Your task to perform on an android device: move an email to a new category in the gmail app Image 0: 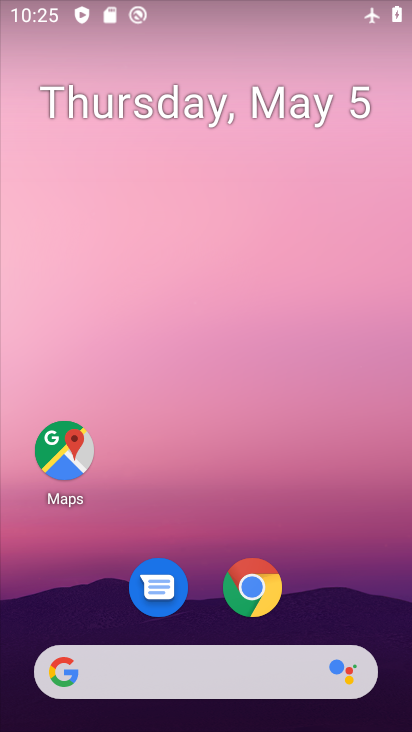
Step 0: drag from (349, 572) to (238, 45)
Your task to perform on an android device: move an email to a new category in the gmail app Image 1: 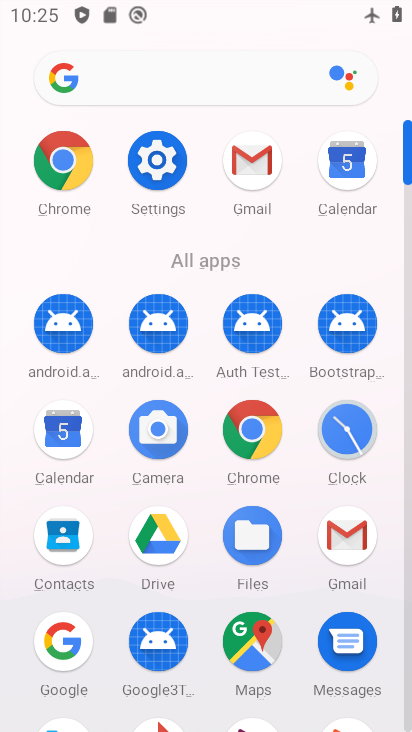
Step 1: drag from (7, 596) to (1, 256)
Your task to perform on an android device: move an email to a new category in the gmail app Image 2: 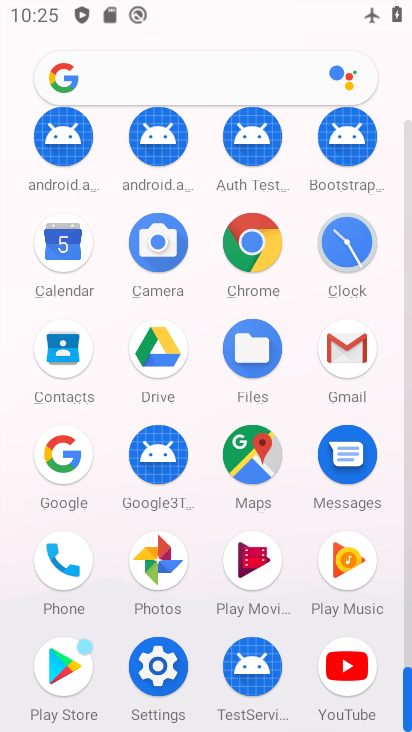
Step 2: click (345, 344)
Your task to perform on an android device: move an email to a new category in the gmail app Image 3: 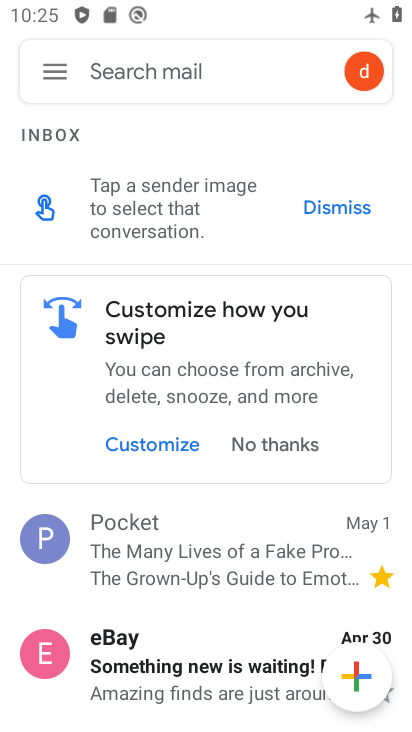
Step 3: click (48, 64)
Your task to perform on an android device: move an email to a new category in the gmail app Image 4: 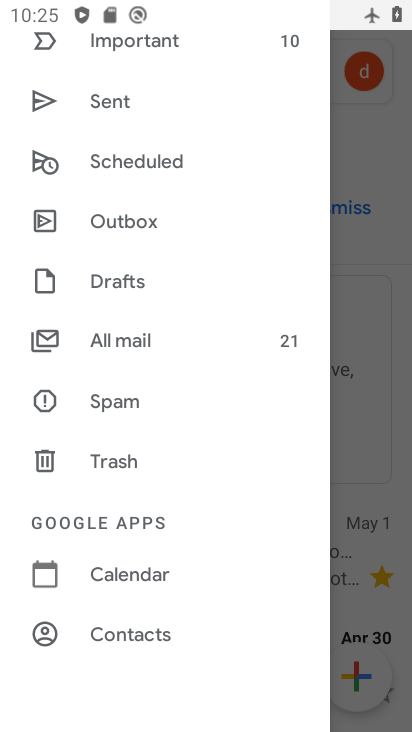
Step 4: drag from (257, 138) to (240, 595)
Your task to perform on an android device: move an email to a new category in the gmail app Image 5: 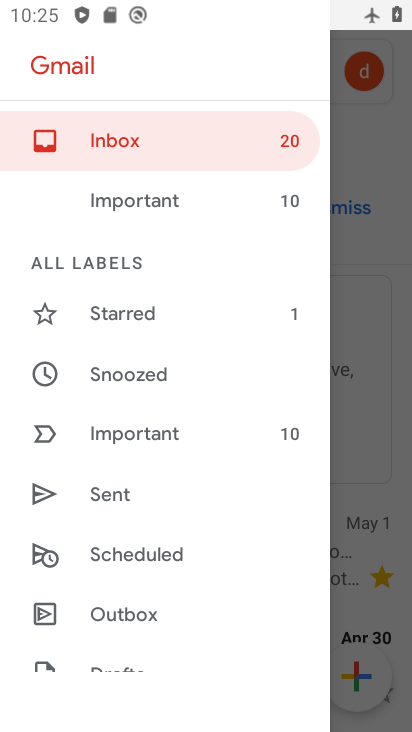
Step 5: drag from (215, 220) to (191, 533)
Your task to perform on an android device: move an email to a new category in the gmail app Image 6: 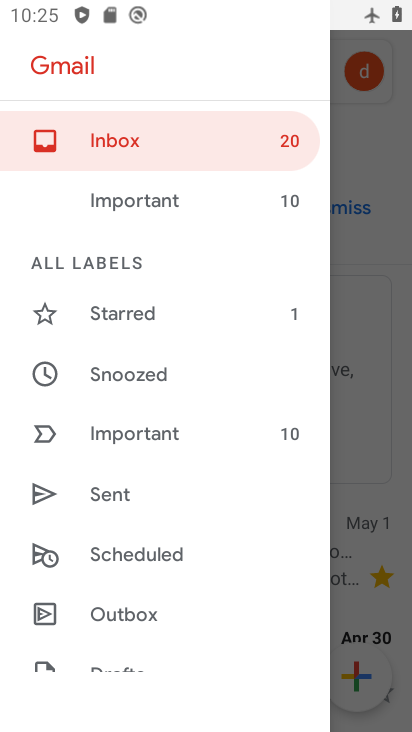
Step 6: click (371, 222)
Your task to perform on an android device: move an email to a new category in the gmail app Image 7: 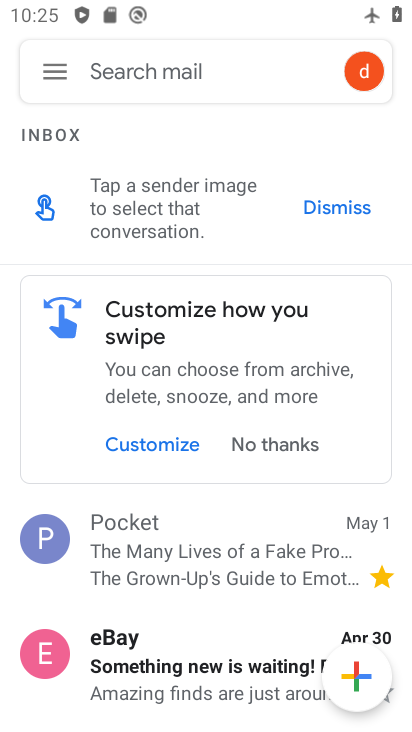
Step 7: click (181, 549)
Your task to perform on an android device: move an email to a new category in the gmail app Image 8: 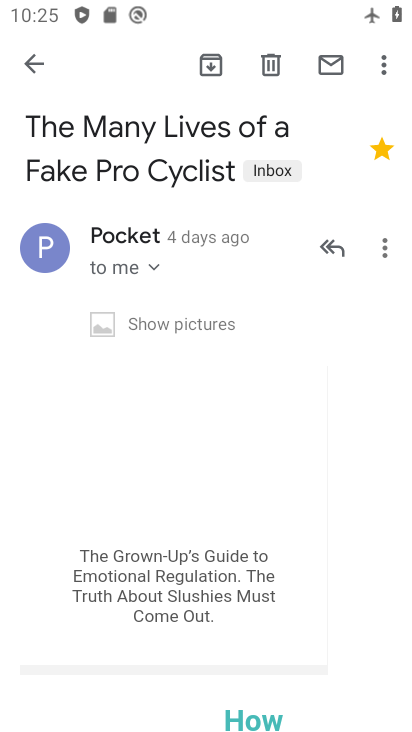
Step 8: click (384, 64)
Your task to perform on an android device: move an email to a new category in the gmail app Image 9: 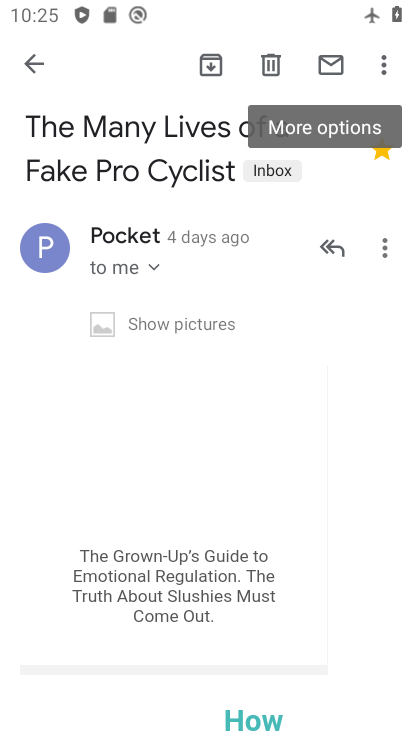
Step 9: click (384, 64)
Your task to perform on an android device: move an email to a new category in the gmail app Image 10: 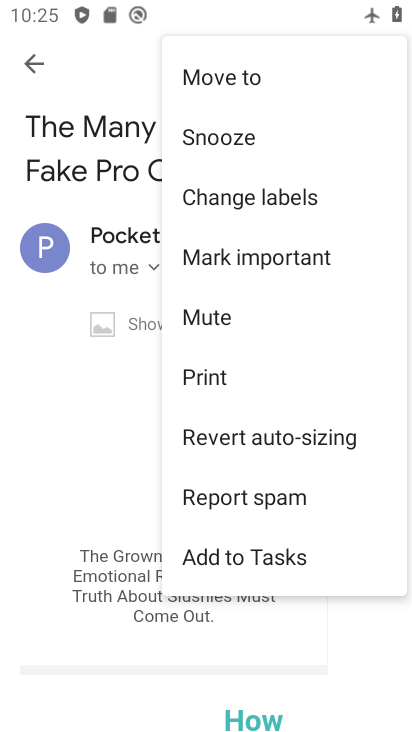
Step 10: click (267, 74)
Your task to perform on an android device: move an email to a new category in the gmail app Image 11: 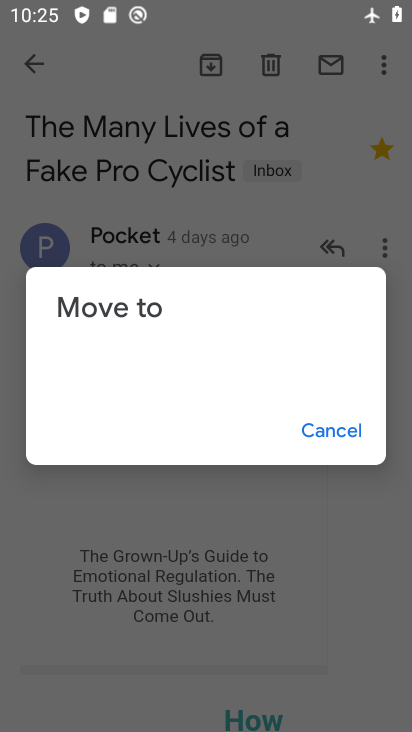
Step 11: click (133, 370)
Your task to perform on an android device: move an email to a new category in the gmail app Image 12: 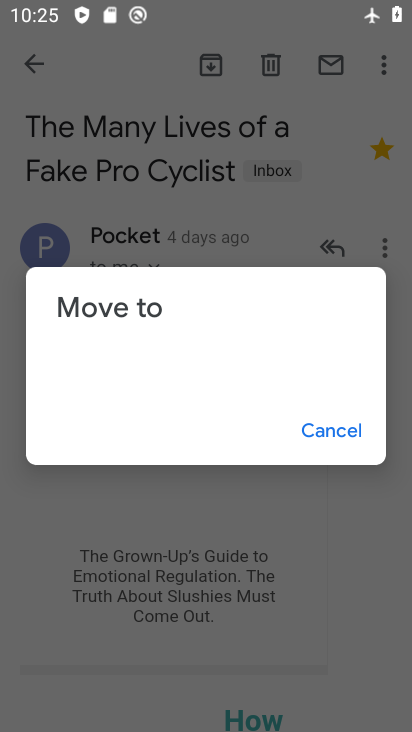
Step 12: click (71, 371)
Your task to perform on an android device: move an email to a new category in the gmail app Image 13: 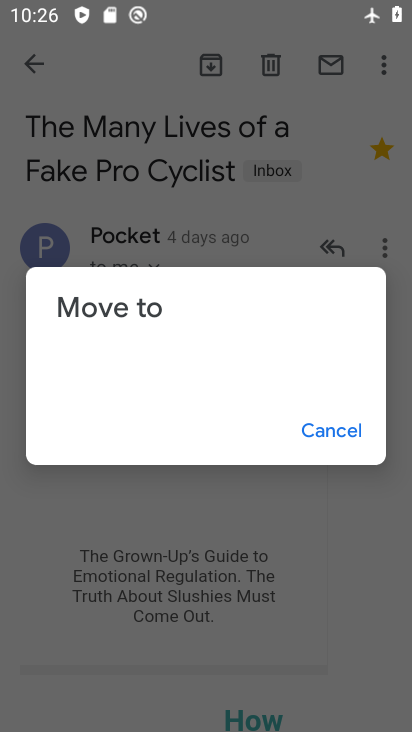
Step 13: click (81, 343)
Your task to perform on an android device: move an email to a new category in the gmail app Image 14: 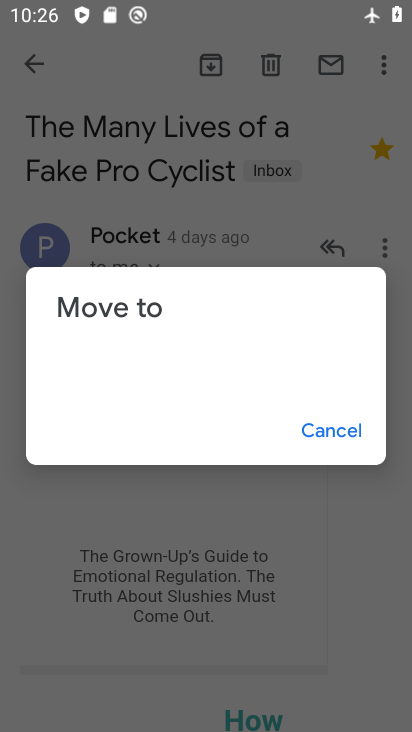
Step 14: click (329, 438)
Your task to perform on an android device: move an email to a new category in the gmail app Image 15: 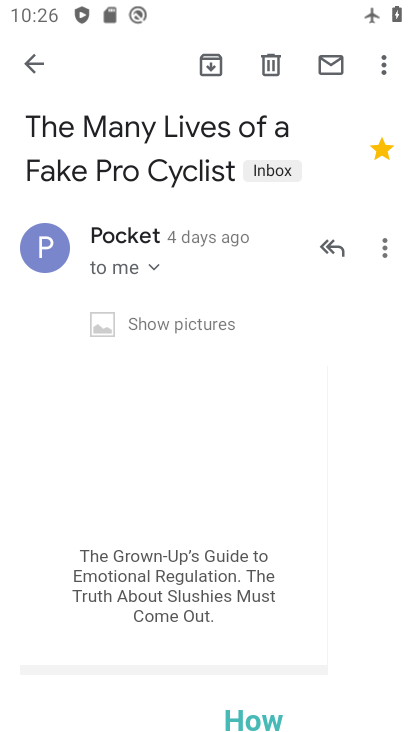
Step 15: click (377, 144)
Your task to perform on an android device: move an email to a new category in the gmail app Image 16: 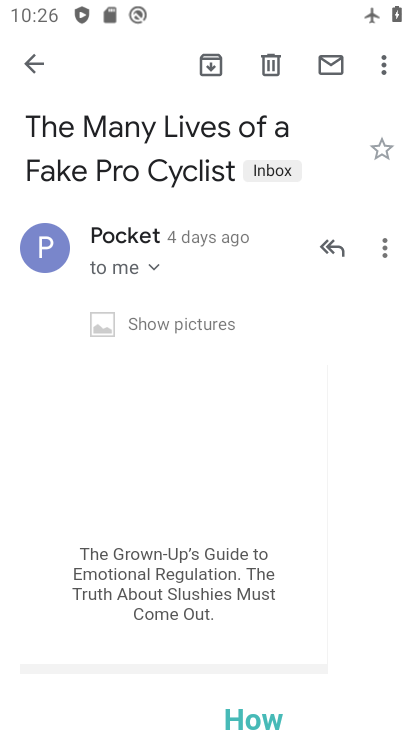
Step 16: task complete